Your task to perform on an android device: Do I have any events this weekend? Image 0: 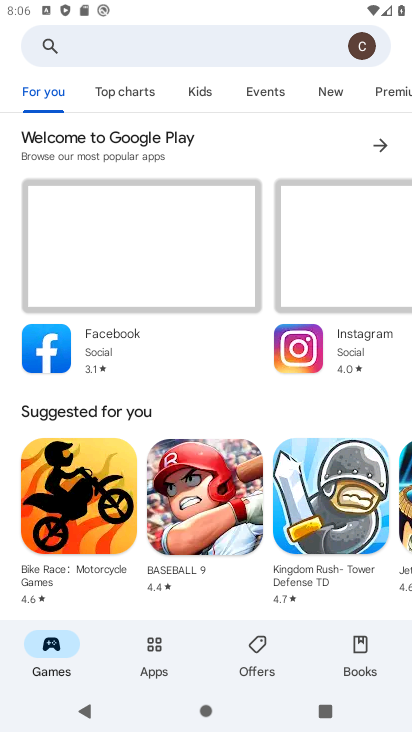
Step 0: press home button
Your task to perform on an android device: Do I have any events this weekend? Image 1: 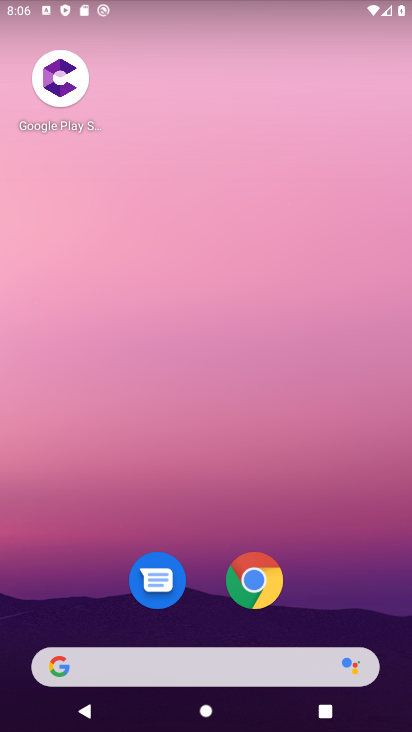
Step 1: drag from (329, 530) to (312, 46)
Your task to perform on an android device: Do I have any events this weekend? Image 2: 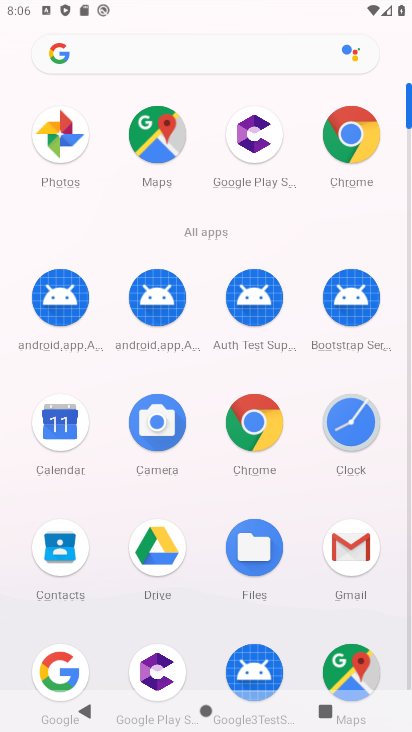
Step 2: click (65, 424)
Your task to perform on an android device: Do I have any events this weekend? Image 3: 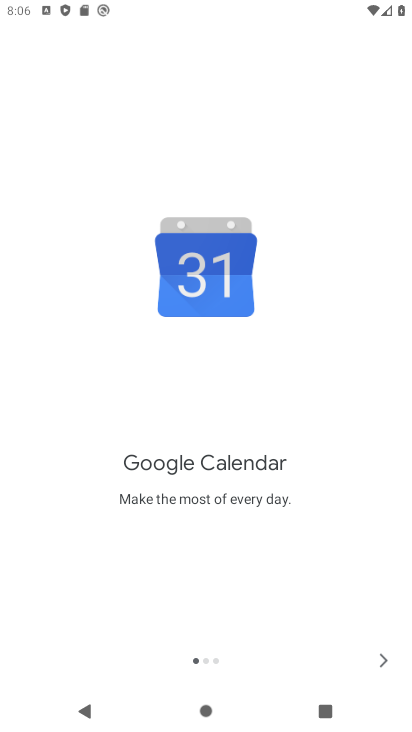
Step 3: click (377, 661)
Your task to perform on an android device: Do I have any events this weekend? Image 4: 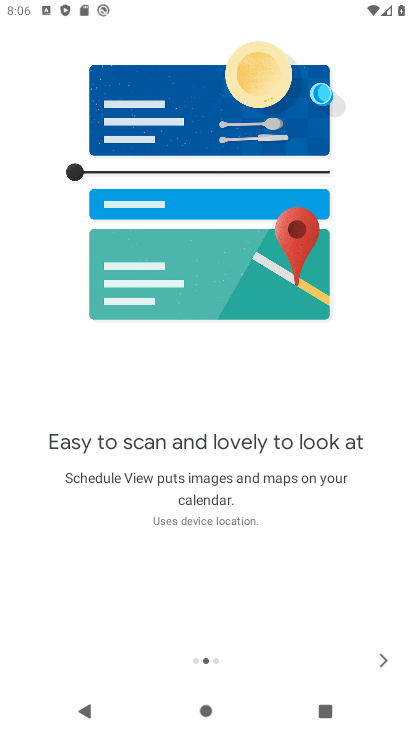
Step 4: click (383, 663)
Your task to perform on an android device: Do I have any events this weekend? Image 5: 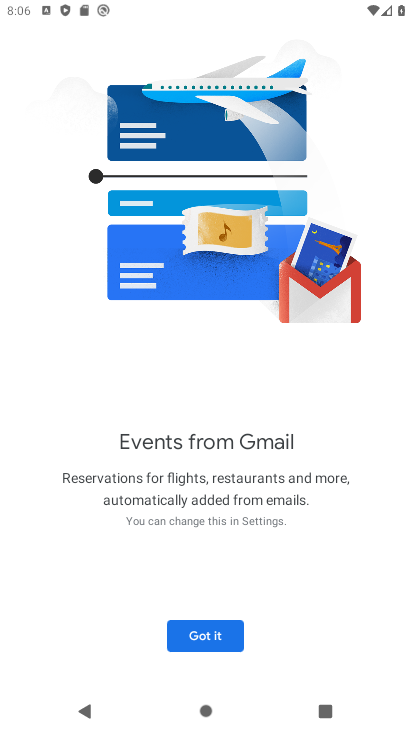
Step 5: click (236, 639)
Your task to perform on an android device: Do I have any events this weekend? Image 6: 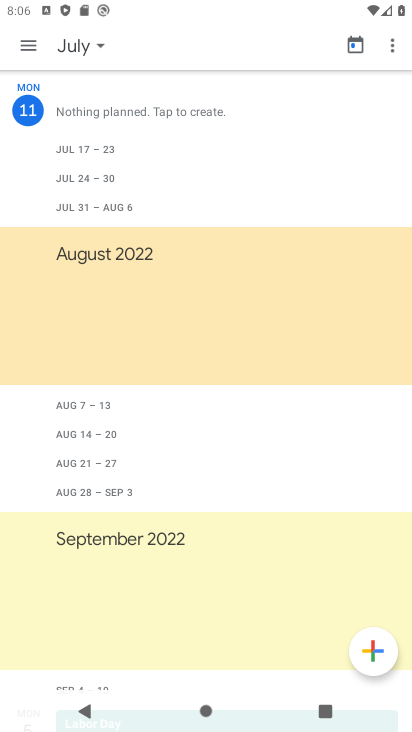
Step 6: click (30, 45)
Your task to perform on an android device: Do I have any events this weekend? Image 7: 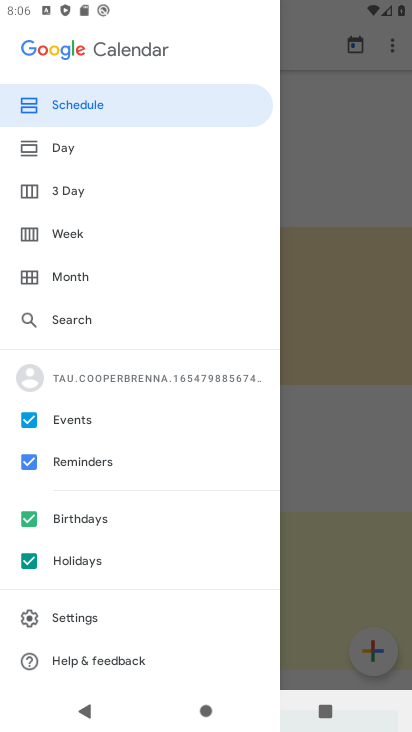
Step 7: click (69, 229)
Your task to perform on an android device: Do I have any events this weekend? Image 8: 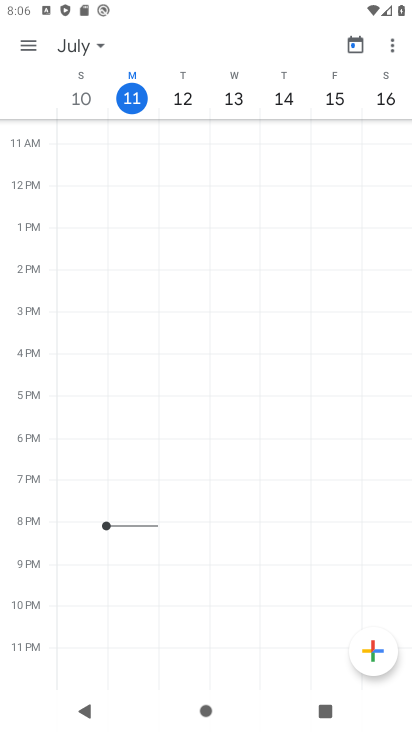
Step 8: click (384, 93)
Your task to perform on an android device: Do I have any events this weekend? Image 9: 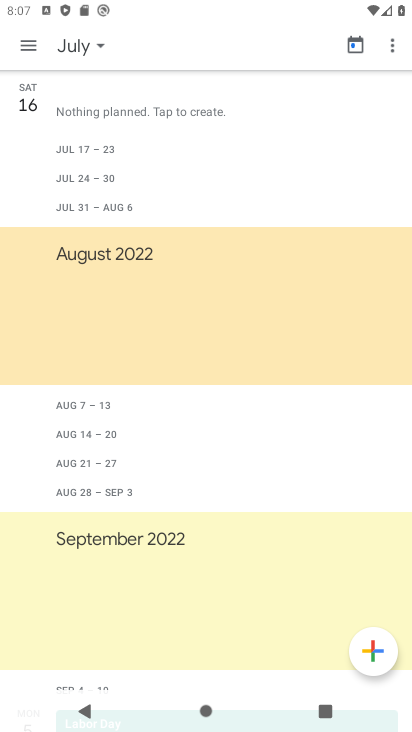
Step 9: click (32, 47)
Your task to perform on an android device: Do I have any events this weekend? Image 10: 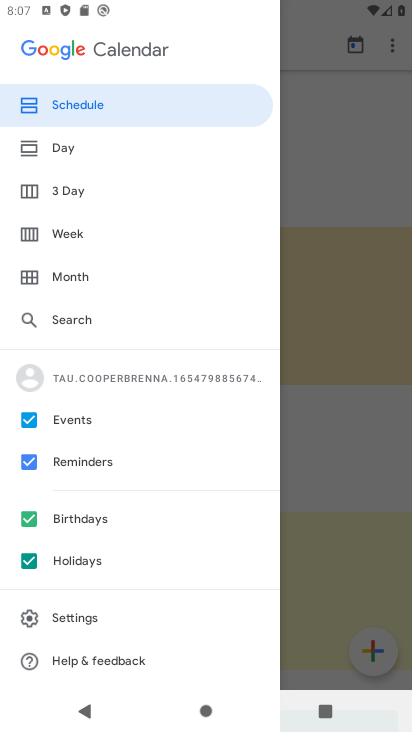
Step 10: click (81, 98)
Your task to perform on an android device: Do I have any events this weekend? Image 11: 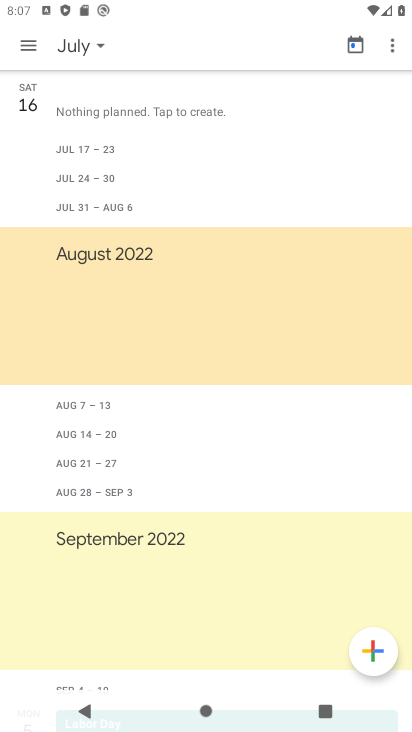
Step 11: task complete